Your task to perform on an android device: Open the calendar and show me this week's events? Image 0: 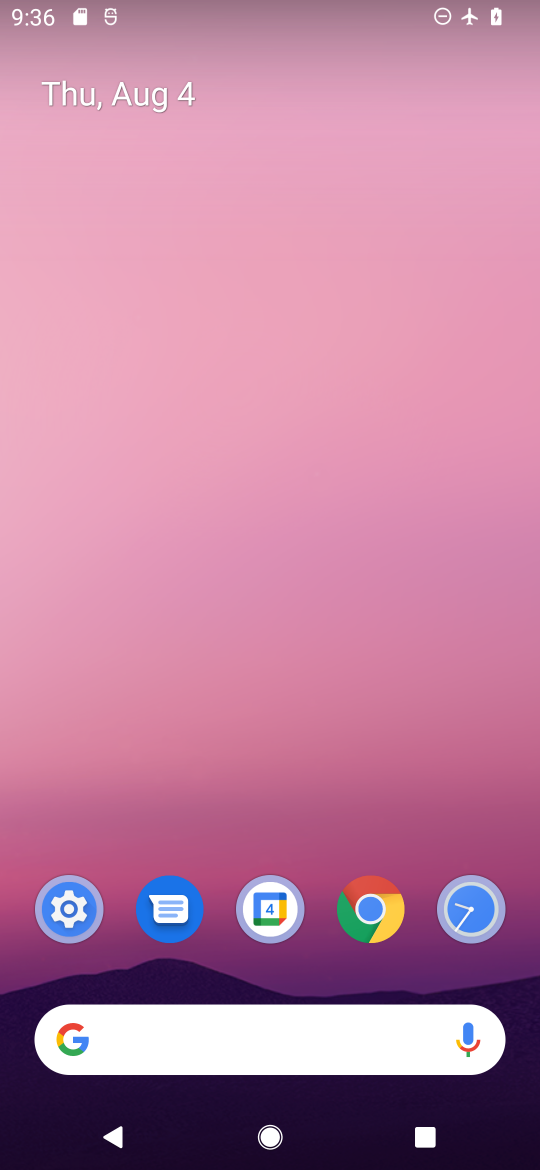
Step 0: drag from (315, 581) to (348, 173)
Your task to perform on an android device: Open the calendar and show me this week's events? Image 1: 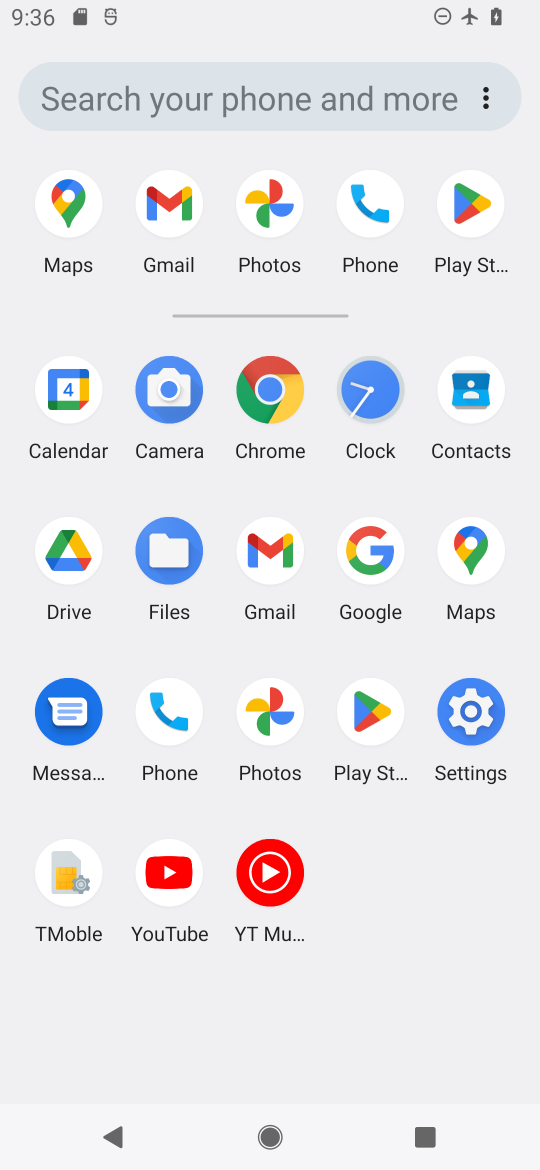
Step 1: click (68, 393)
Your task to perform on an android device: Open the calendar and show me this week's events? Image 2: 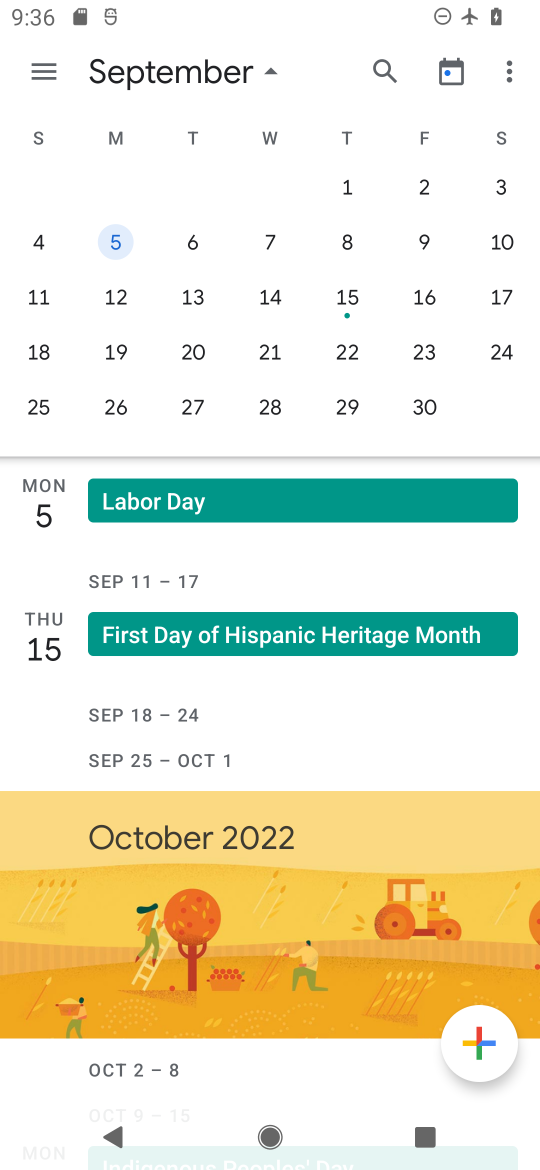
Step 2: drag from (291, 700) to (293, 433)
Your task to perform on an android device: Open the calendar and show me this week's events? Image 3: 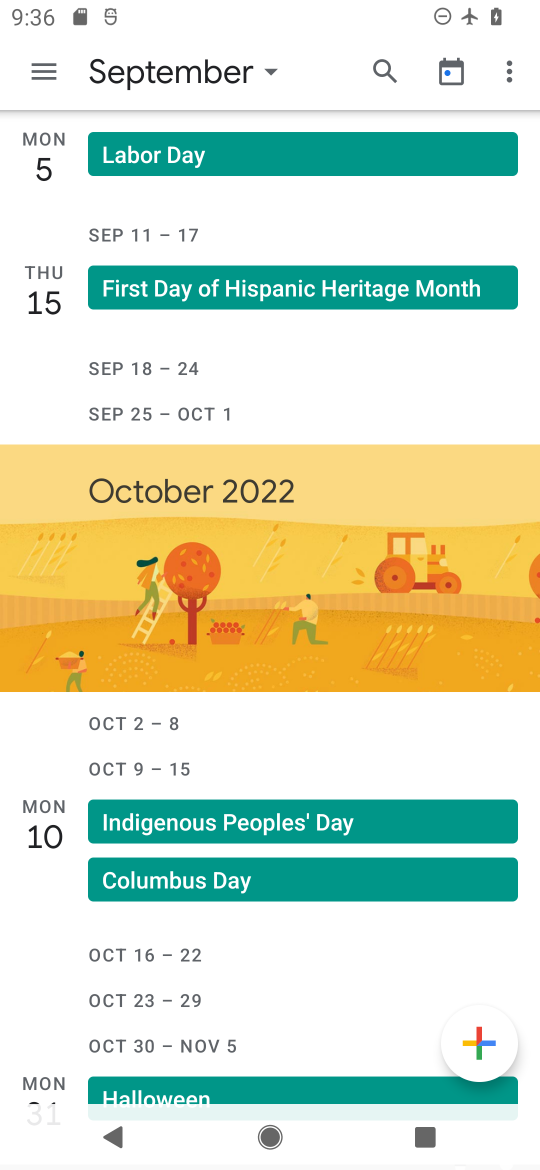
Step 3: drag from (248, 125) to (234, 401)
Your task to perform on an android device: Open the calendar and show me this week's events? Image 4: 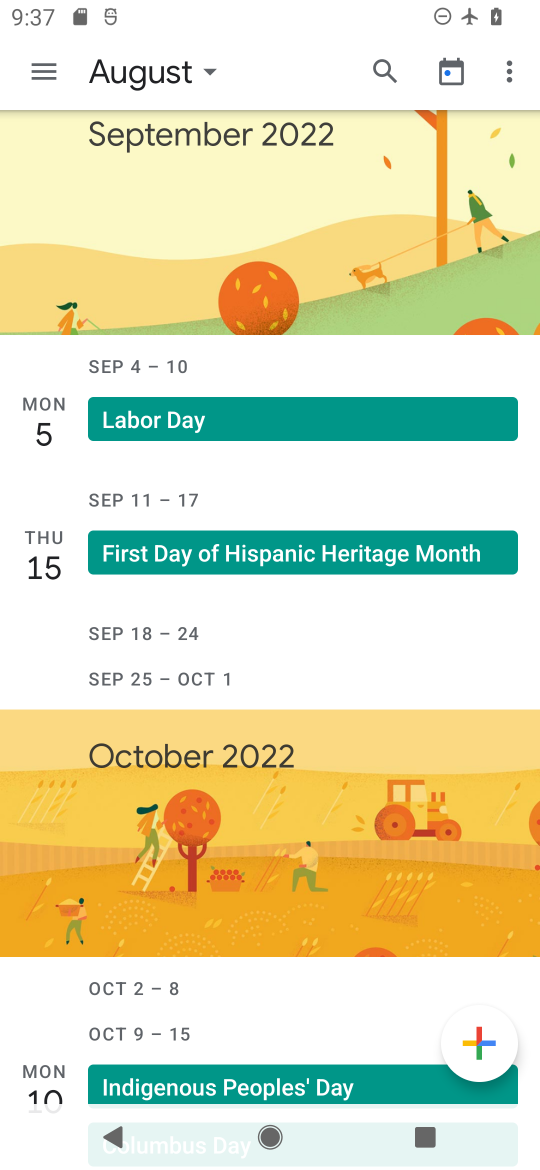
Step 4: drag from (217, 204) to (234, 549)
Your task to perform on an android device: Open the calendar and show me this week's events? Image 5: 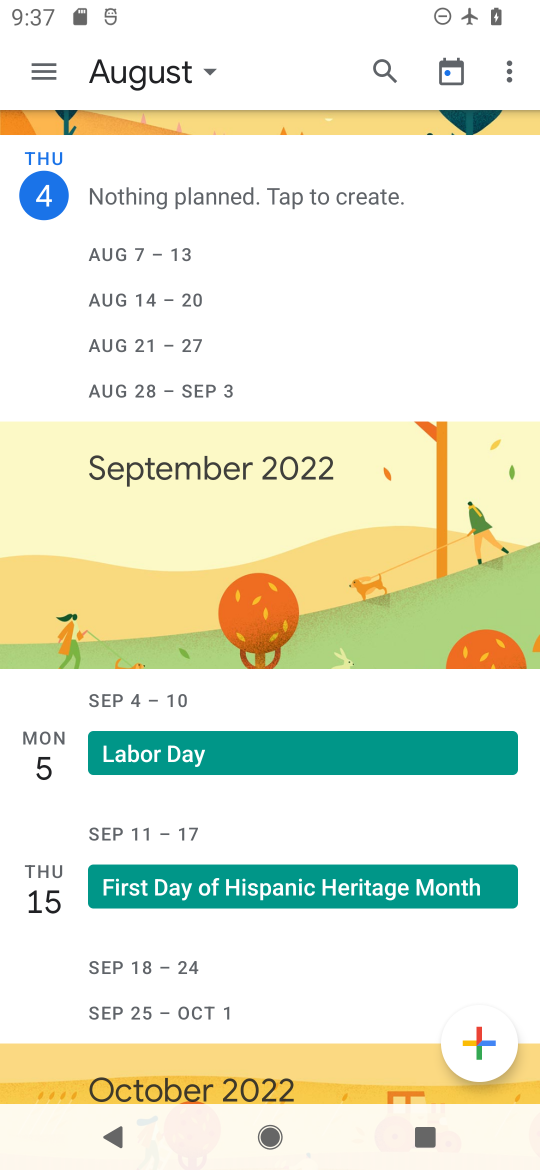
Step 5: click (217, 62)
Your task to perform on an android device: Open the calendar and show me this week's events? Image 6: 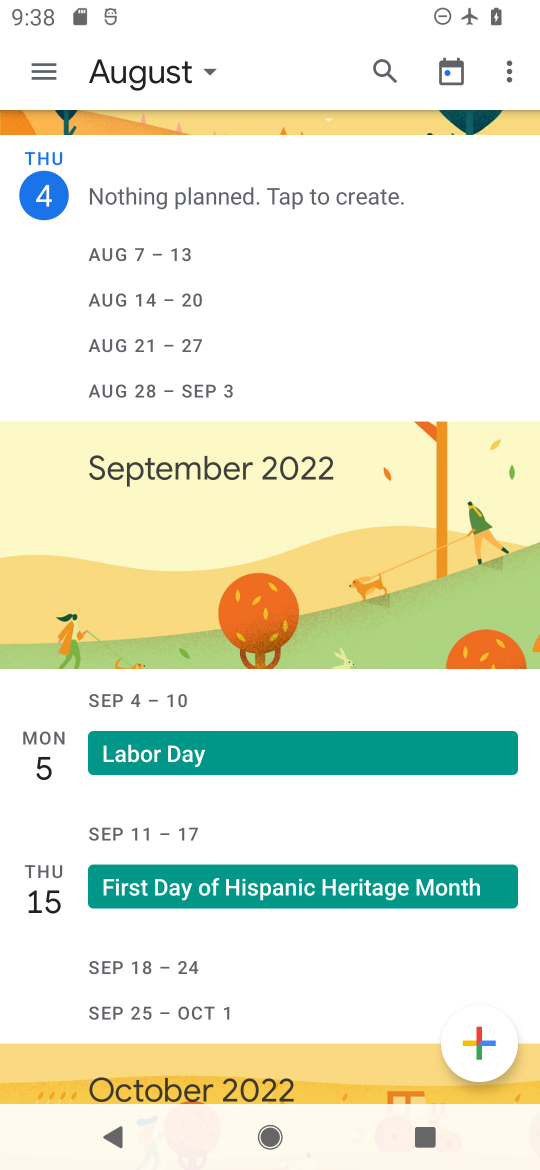
Step 6: task complete